Your task to perform on an android device: Open ESPN.com Image 0: 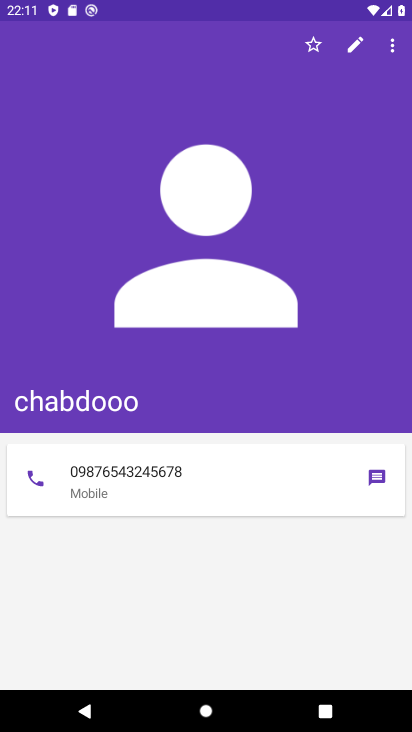
Step 0: press home button
Your task to perform on an android device: Open ESPN.com Image 1: 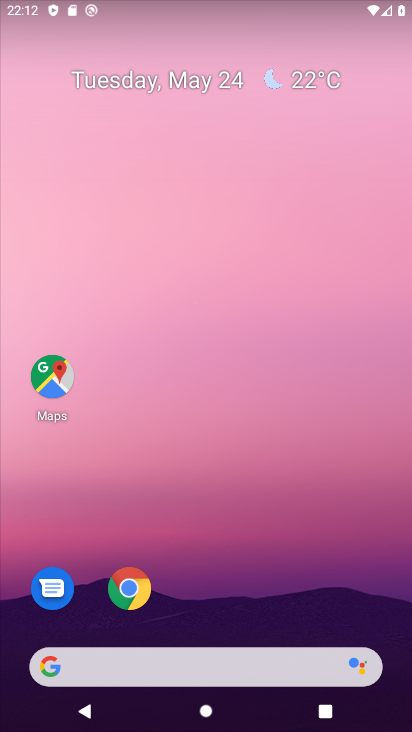
Step 1: click (134, 583)
Your task to perform on an android device: Open ESPN.com Image 2: 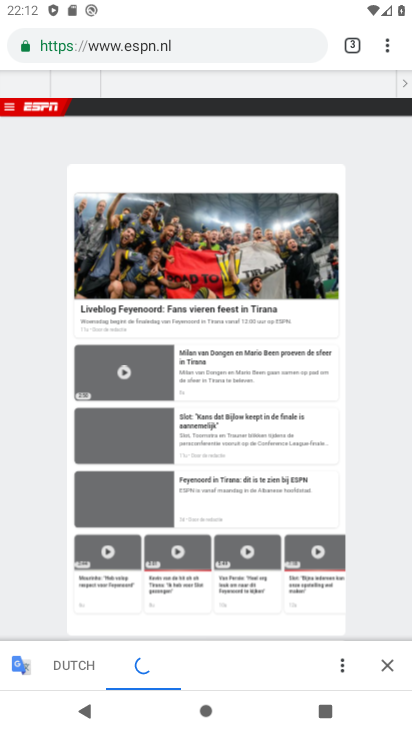
Step 2: task complete